Your task to perform on an android device: Open Reddit.com Image 0: 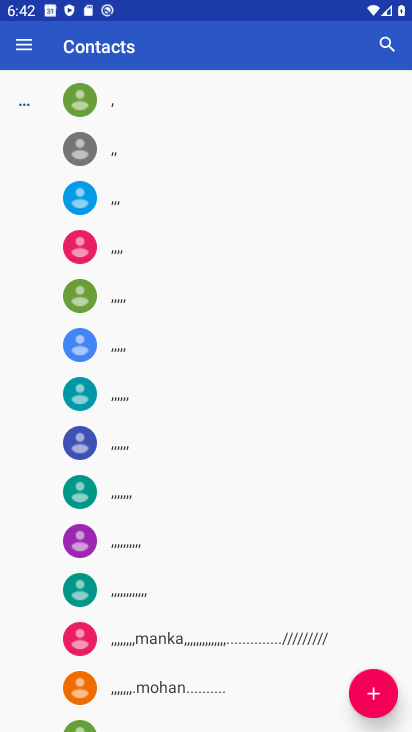
Step 0: press home button
Your task to perform on an android device: Open Reddit.com Image 1: 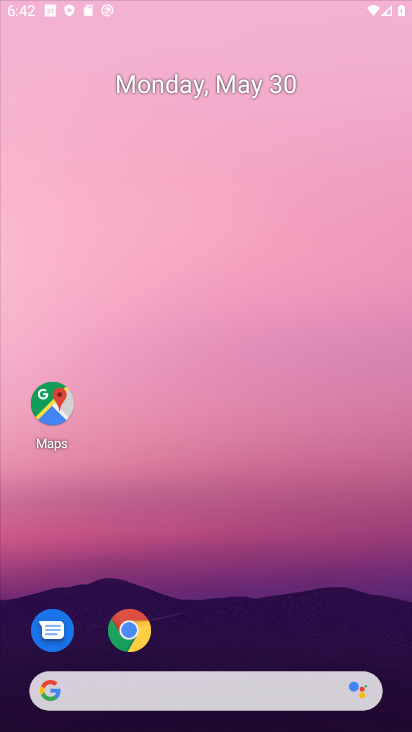
Step 1: drag from (319, 605) to (279, 32)
Your task to perform on an android device: Open Reddit.com Image 2: 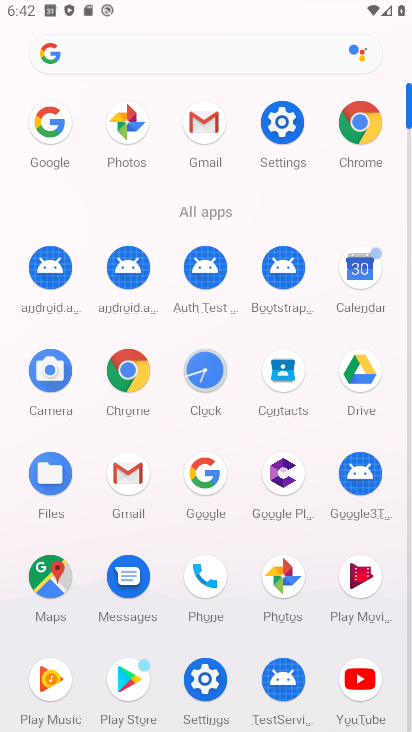
Step 2: click (196, 482)
Your task to perform on an android device: Open Reddit.com Image 3: 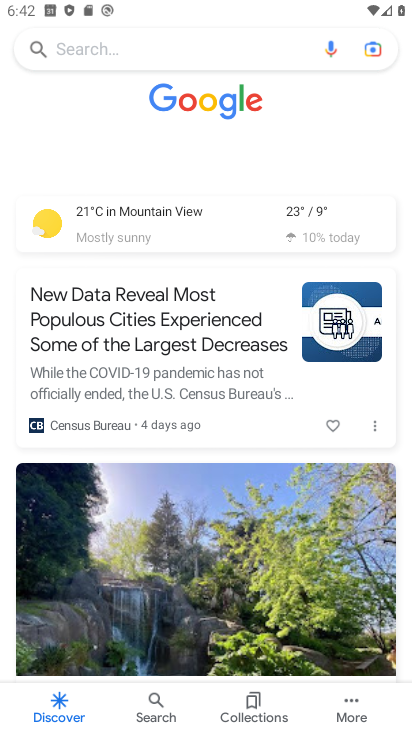
Step 3: click (139, 54)
Your task to perform on an android device: Open Reddit.com Image 4: 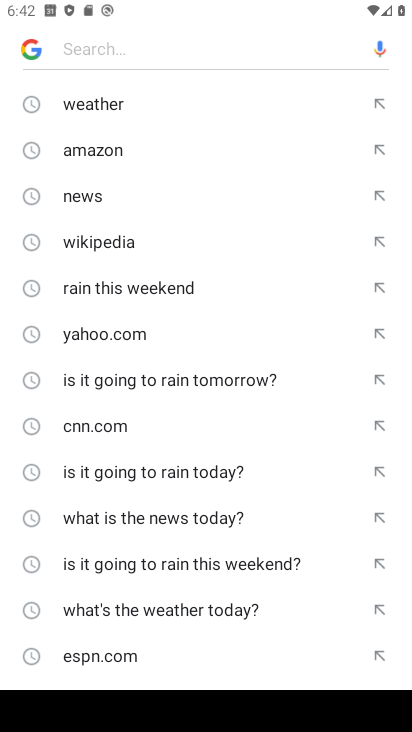
Step 4: drag from (121, 627) to (128, 356)
Your task to perform on an android device: Open Reddit.com Image 5: 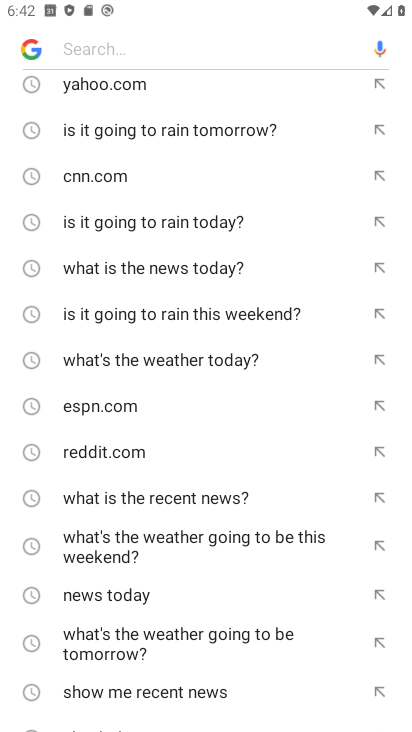
Step 5: click (137, 459)
Your task to perform on an android device: Open Reddit.com Image 6: 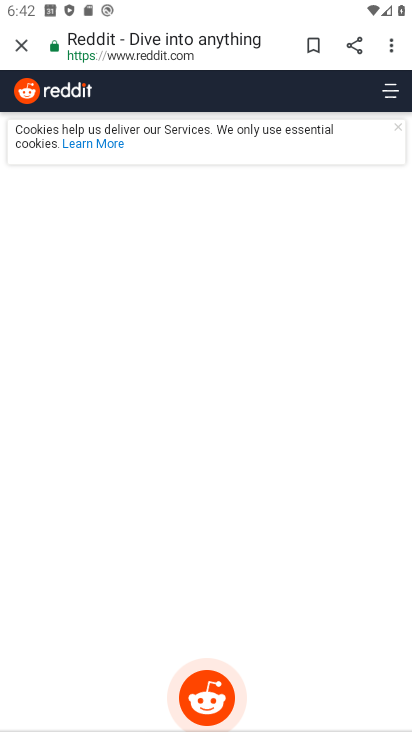
Step 6: task complete